Your task to perform on an android device: turn on showing notifications on the lock screen Image 0: 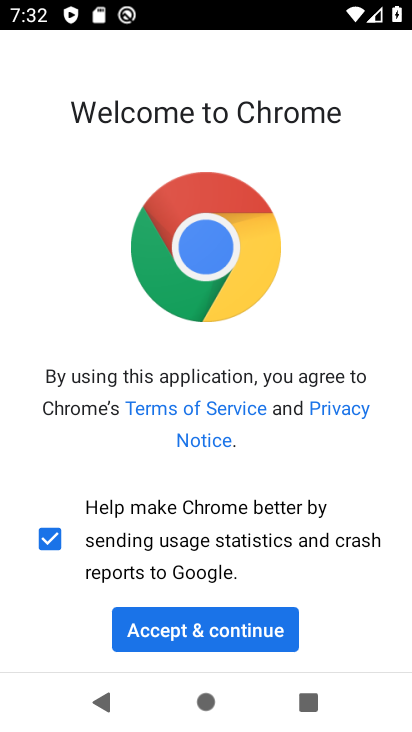
Step 0: press home button
Your task to perform on an android device: turn on showing notifications on the lock screen Image 1: 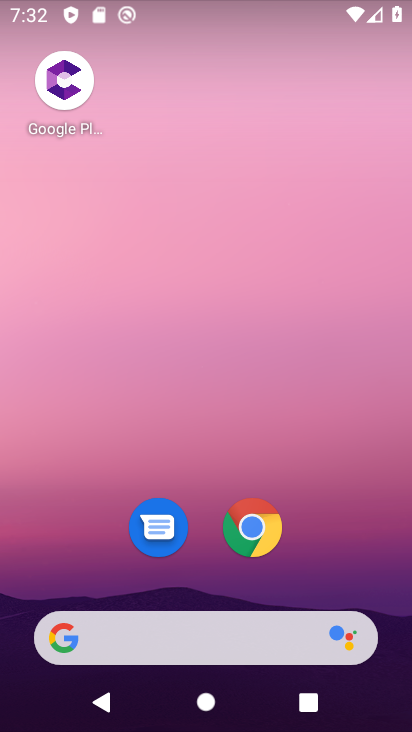
Step 1: drag from (217, 589) to (220, 10)
Your task to perform on an android device: turn on showing notifications on the lock screen Image 2: 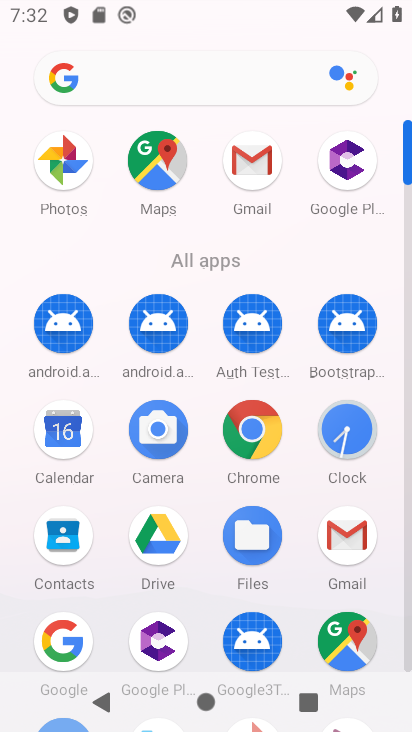
Step 2: drag from (198, 587) to (191, 267)
Your task to perform on an android device: turn on showing notifications on the lock screen Image 3: 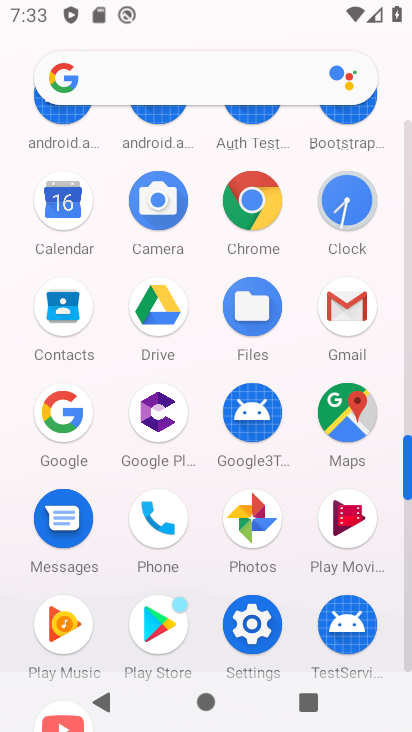
Step 3: click (256, 638)
Your task to perform on an android device: turn on showing notifications on the lock screen Image 4: 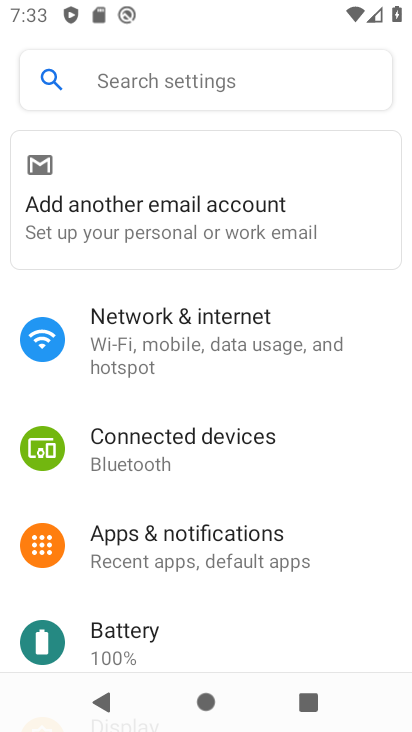
Step 4: click (158, 557)
Your task to perform on an android device: turn on showing notifications on the lock screen Image 5: 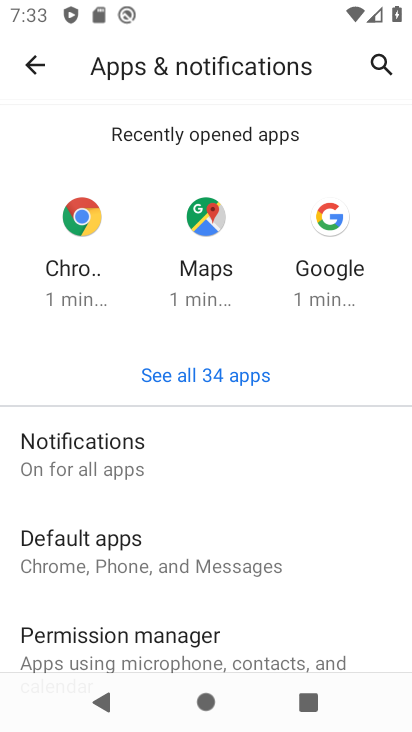
Step 5: click (174, 446)
Your task to perform on an android device: turn on showing notifications on the lock screen Image 6: 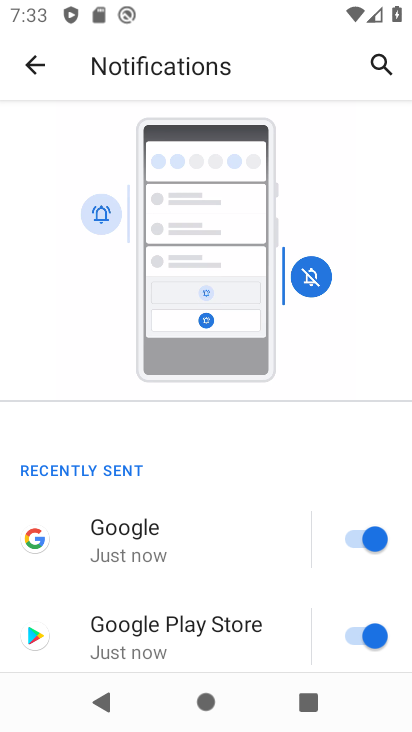
Step 6: drag from (163, 549) to (261, 71)
Your task to perform on an android device: turn on showing notifications on the lock screen Image 7: 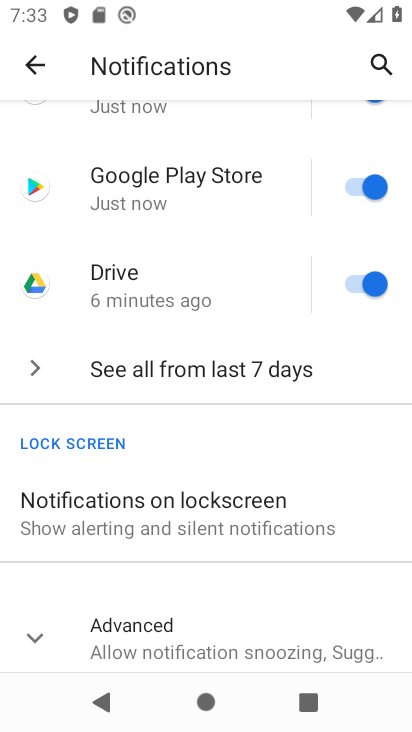
Step 7: click (206, 498)
Your task to perform on an android device: turn on showing notifications on the lock screen Image 8: 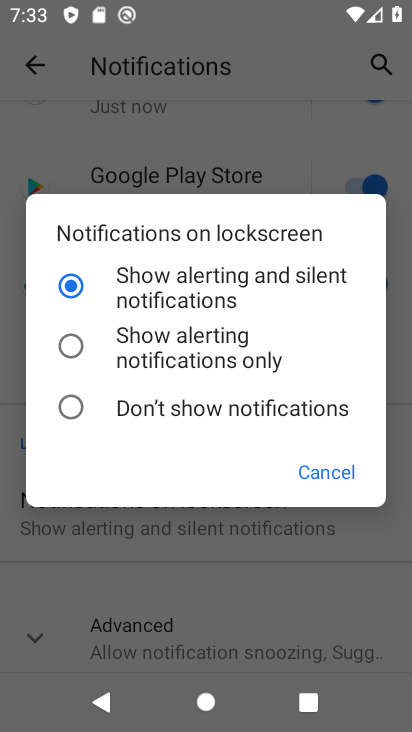
Step 8: task complete